Your task to perform on an android device: Open the web browser Image 0: 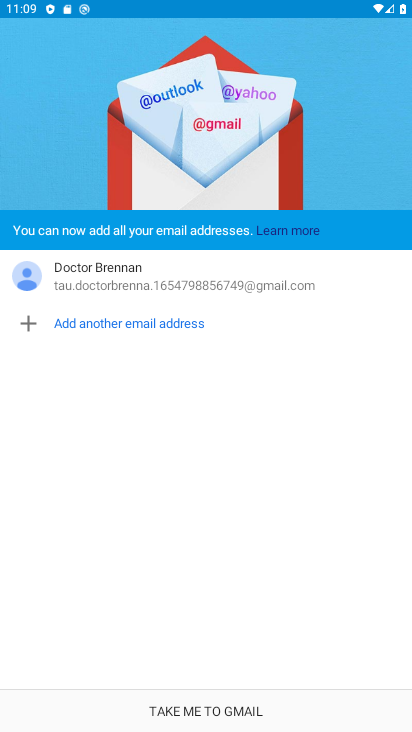
Step 0: press home button
Your task to perform on an android device: Open the web browser Image 1: 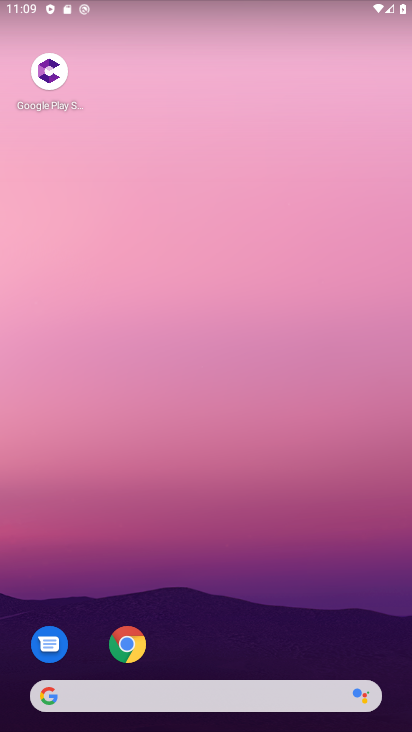
Step 1: drag from (174, 676) to (207, 7)
Your task to perform on an android device: Open the web browser Image 2: 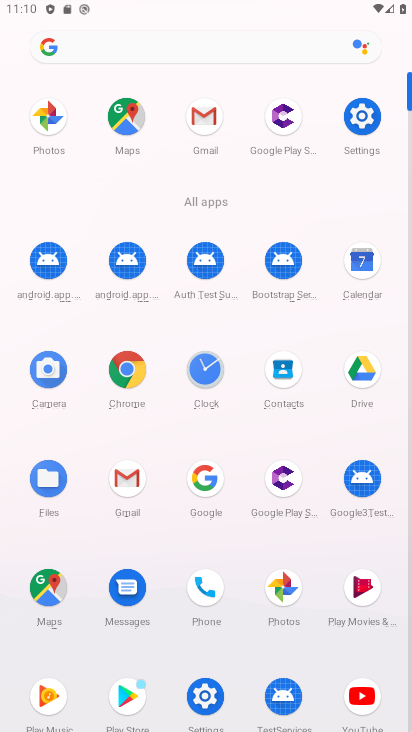
Step 2: click (127, 360)
Your task to perform on an android device: Open the web browser Image 3: 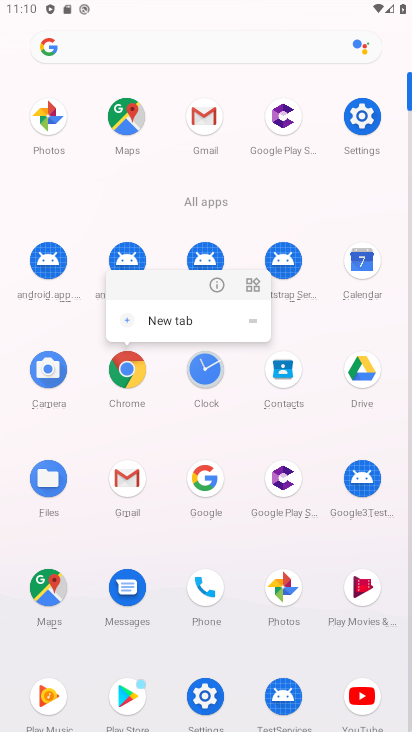
Step 3: click (211, 281)
Your task to perform on an android device: Open the web browser Image 4: 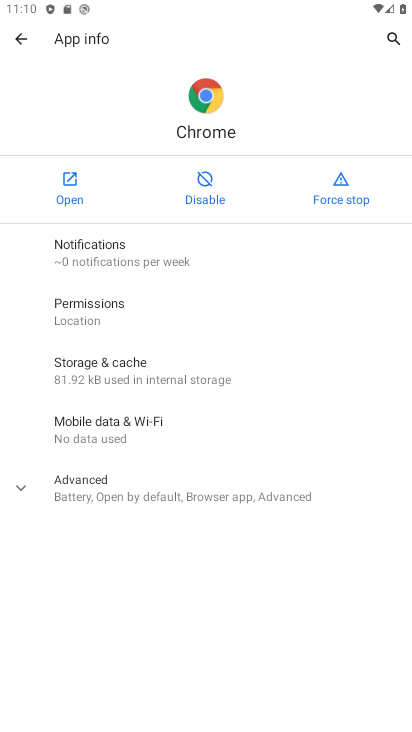
Step 4: click (68, 189)
Your task to perform on an android device: Open the web browser Image 5: 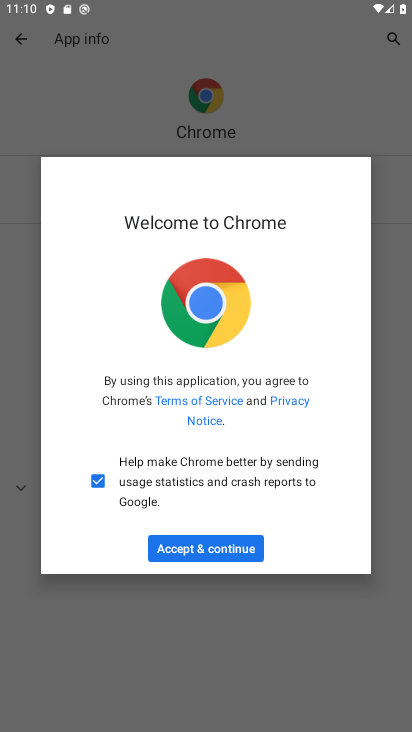
Step 5: click (186, 547)
Your task to perform on an android device: Open the web browser Image 6: 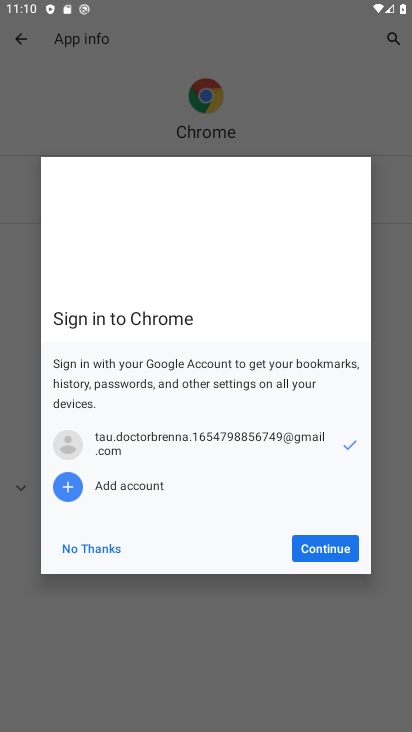
Step 6: click (325, 547)
Your task to perform on an android device: Open the web browser Image 7: 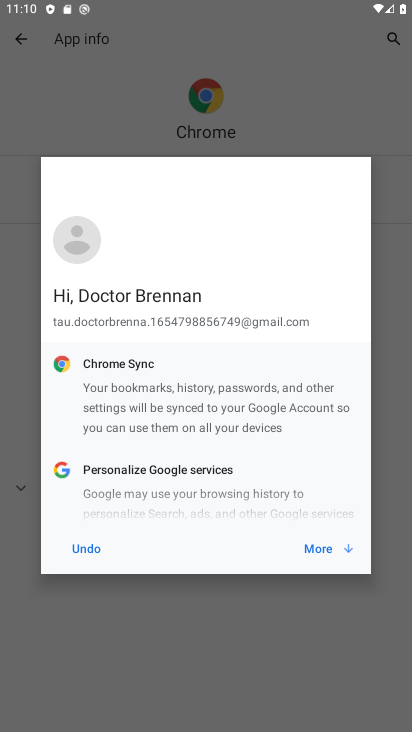
Step 7: click (302, 552)
Your task to perform on an android device: Open the web browser Image 8: 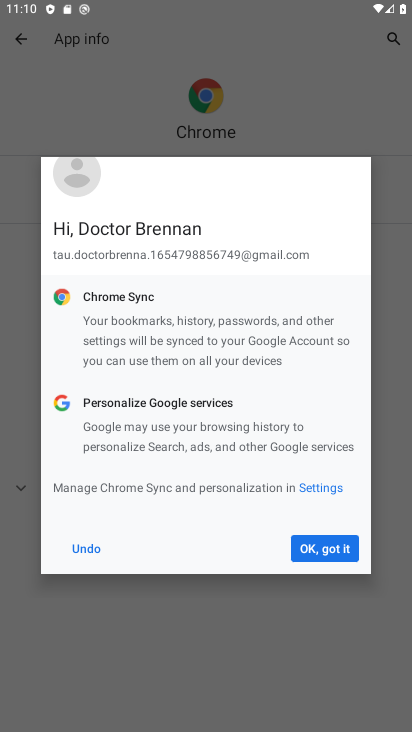
Step 8: click (335, 542)
Your task to perform on an android device: Open the web browser Image 9: 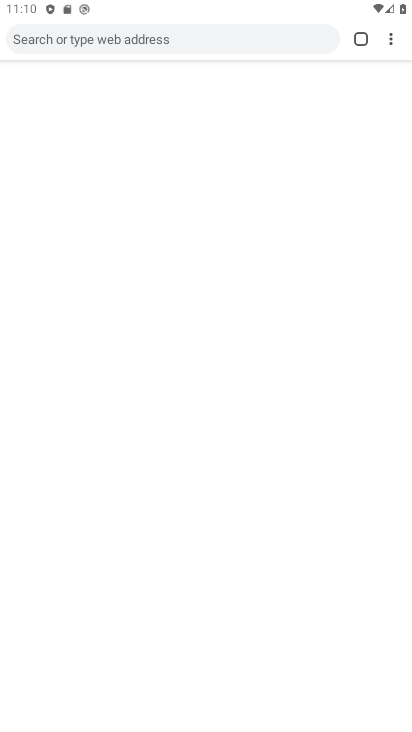
Step 9: task complete